Your task to perform on an android device: allow notifications from all sites in the chrome app Image 0: 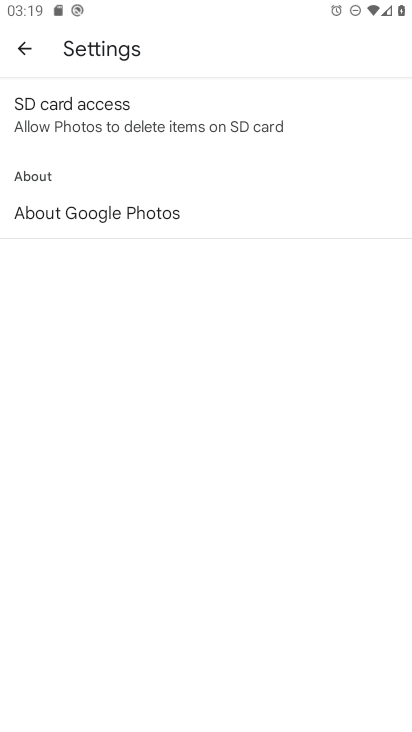
Step 0: press home button
Your task to perform on an android device: allow notifications from all sites in the chrome app Image 1: 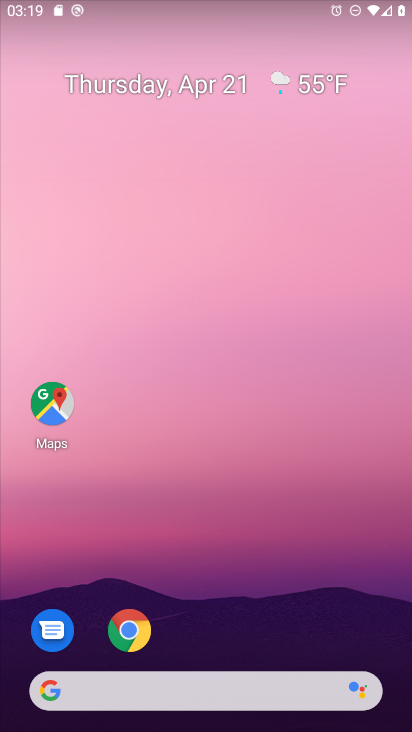
Step 1: drag from (254, 623) to (252, 111)
Your task to perform on an android device: allow notifications from all sites in the chrome app Image 2: 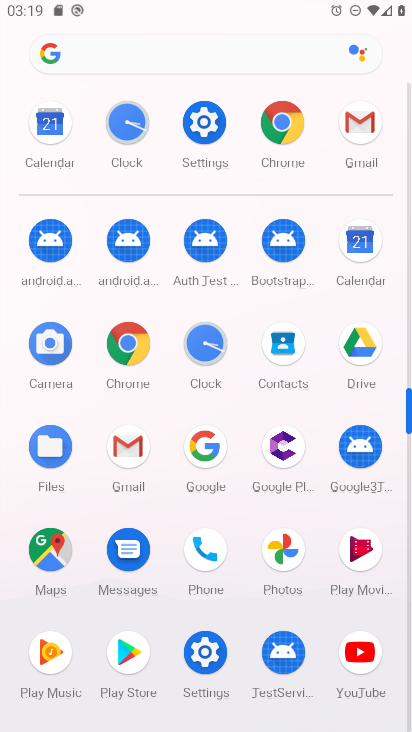
Step 2: click (284, 114)
Your task to perform on an android device: allow notifications from all sites in the chrome app Image 3: 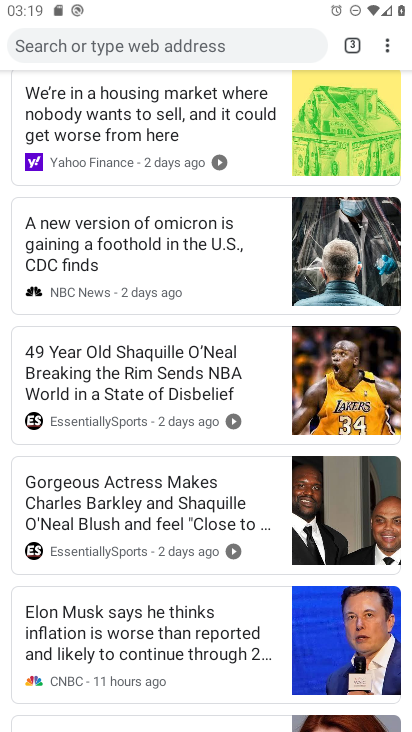
Step 3: click (380, 55)
Your task to perform on an android device: allow notifications from all sites in the chrome app Image 4: 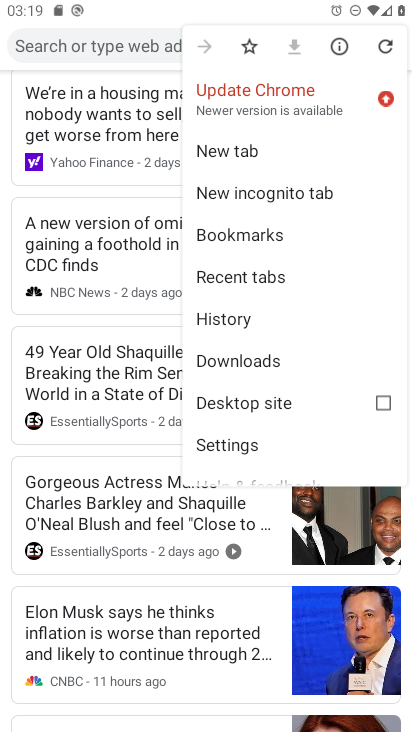
Step 4: click (263, 441)
Your task to perform on an android device: allow notifications from all sites in the chrome app Image 5: 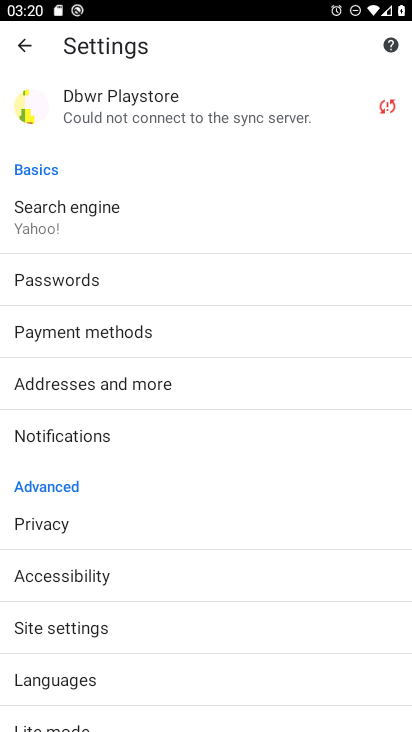
Step 5: click (148, 616)
Your task to perform on an android device: allow notifications from all sites in the chrome app Image 6: 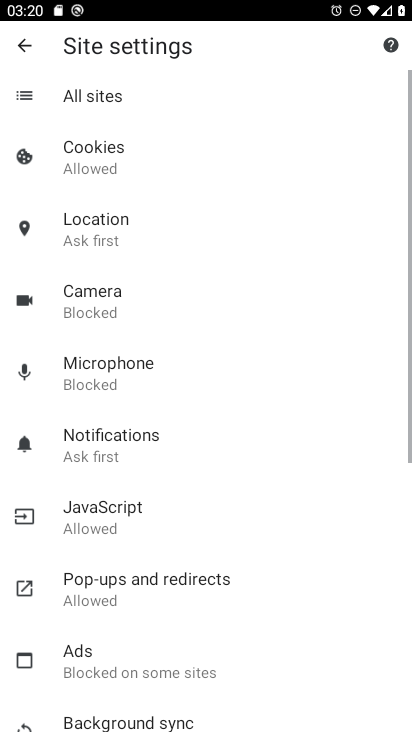
Step 6: task complete